Your task to perform on an android device: Open settings Image 0: 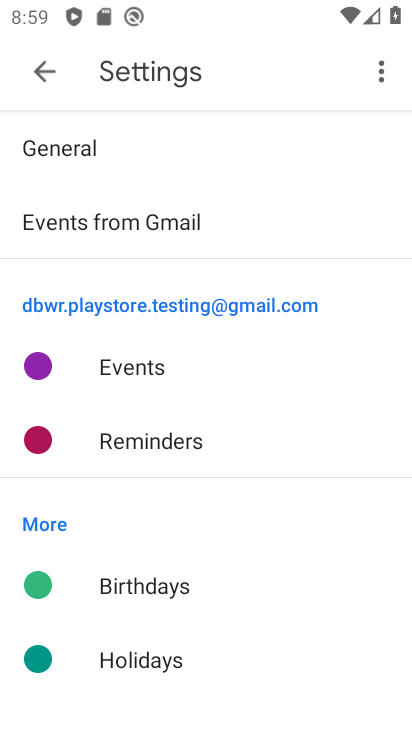
Step 0: press back button
Your task to perform on an android device: Open settings Image 1: 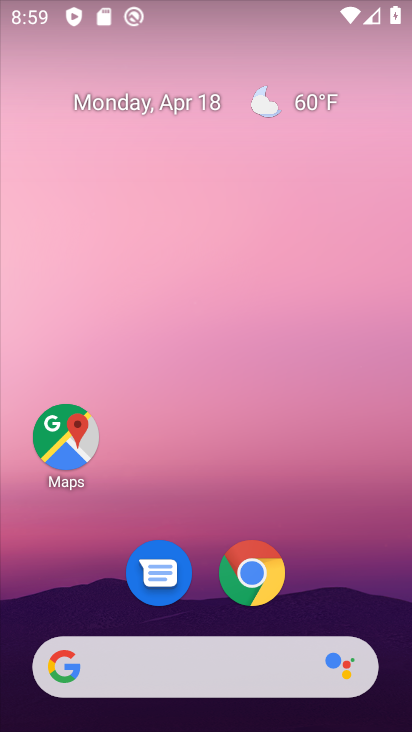
Step 1: drag from (206, 729) to (196, 131)
Your task to perform on an android device: Open settings Image 2: 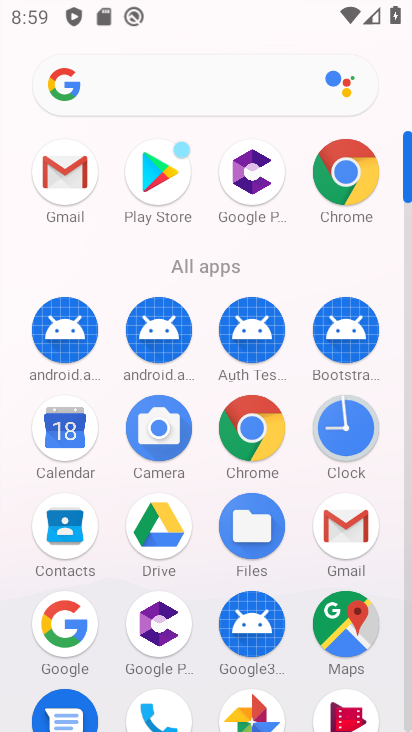
Step 2: drag from (209, 607) to (210, 213)
Your task to perform on an android device: Open settings Image 3: 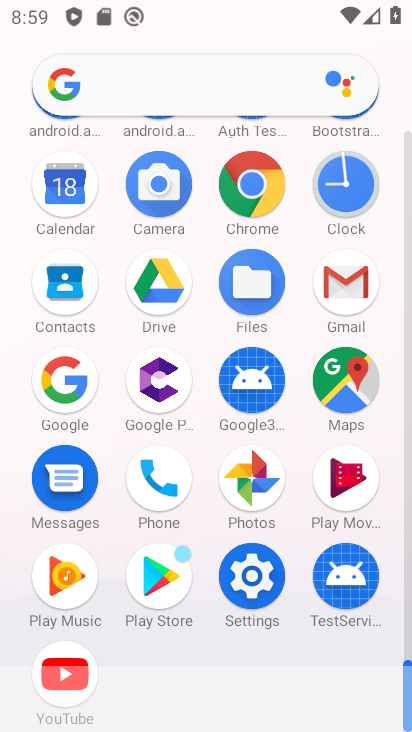
Step 3: click (251, 579)
Your task to perform on an android device: Open settings Image 4: 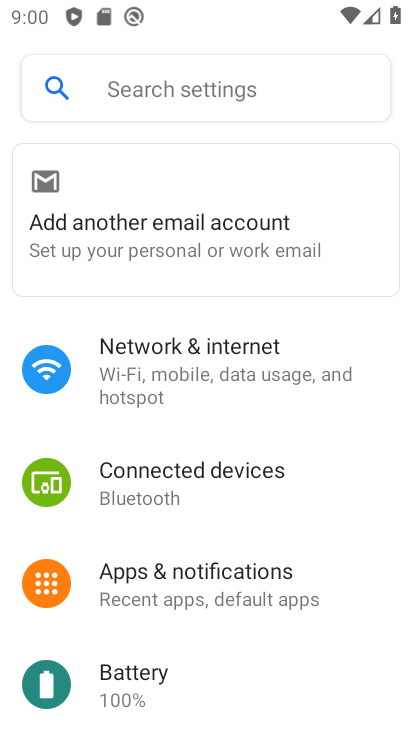
Step 4: click (154, 370)
Your task to perform on an android device: Open settings Image 5: 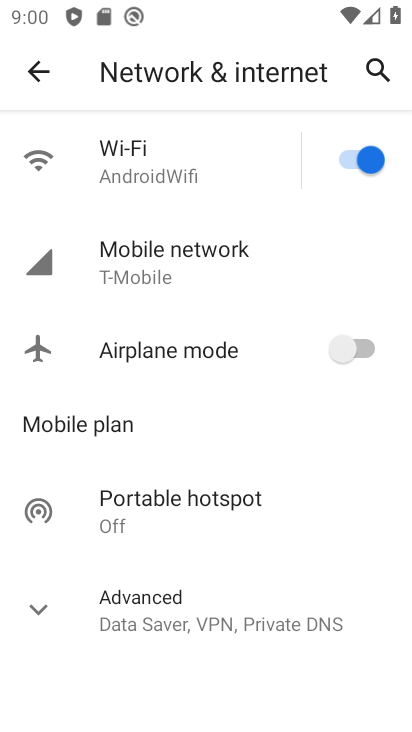
Step 5: click (144, 167)
Your task to perform on an android device: Open settings Image 6: 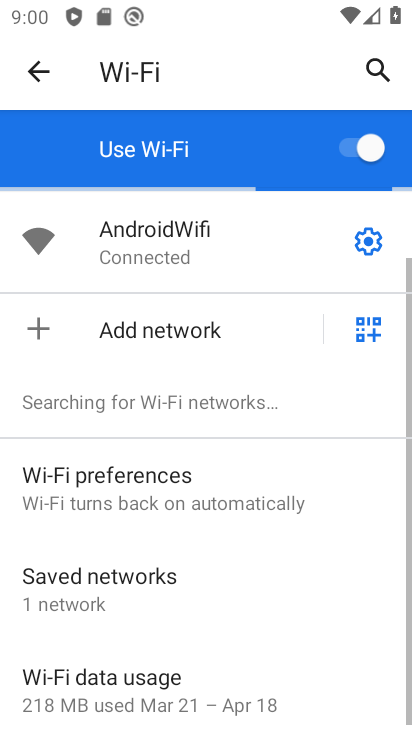
Step 6: click (362, 234)
Your task to perform on an android device: Open settings Image 7: 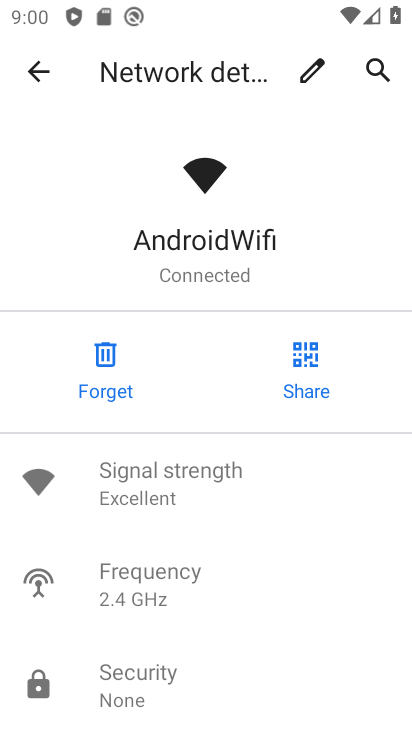
Step 7: task complete